Your task to perform on an android device: delete location history Image 0: 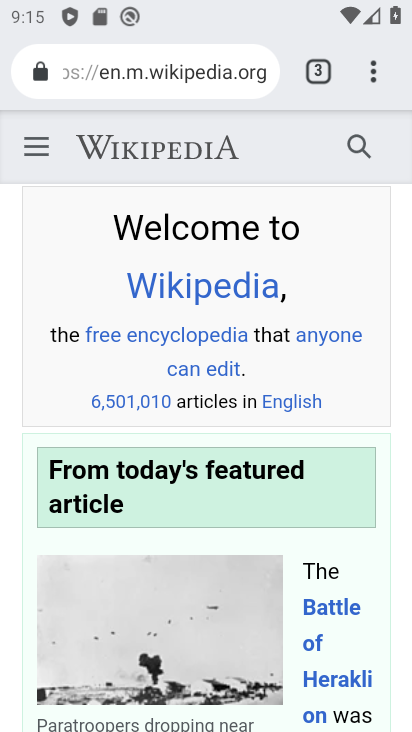
Step 0: click (367, 62)
Your task to perform on an android device: delete location history Image 1: 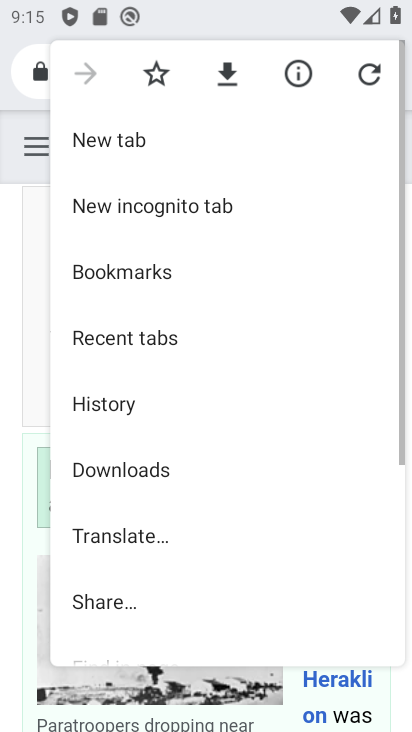
Step 1: press home button
Your task to perform on an android device: delete location history Image 2: 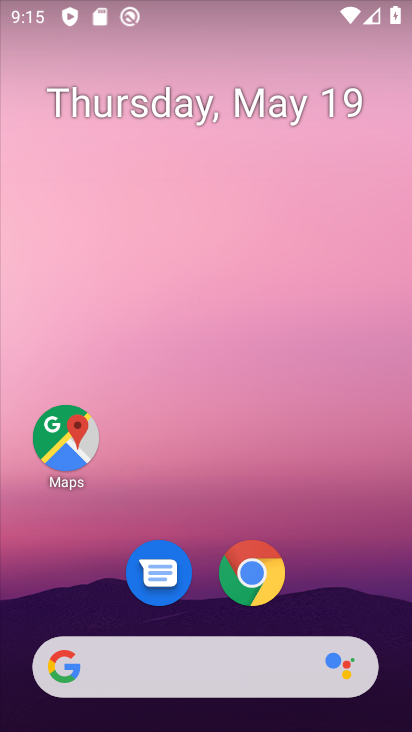
Step 2: click (57, 454)
Your task to perform on an android device: delete location history Image 3: 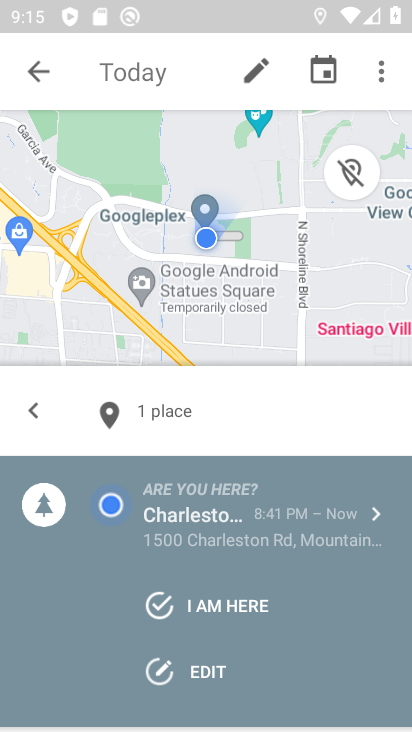
Step 3: click (380, 78)
Your task to perform on an android device: delete location history Image 4: 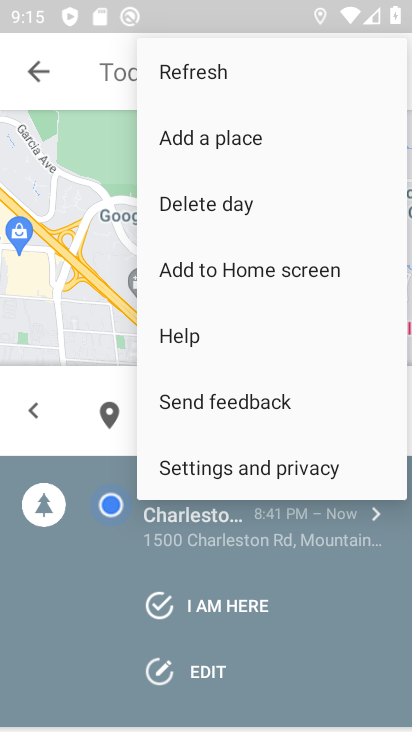
Step 4: click (237, 463)
Your task to perform on an android device: delete location history Image 5: 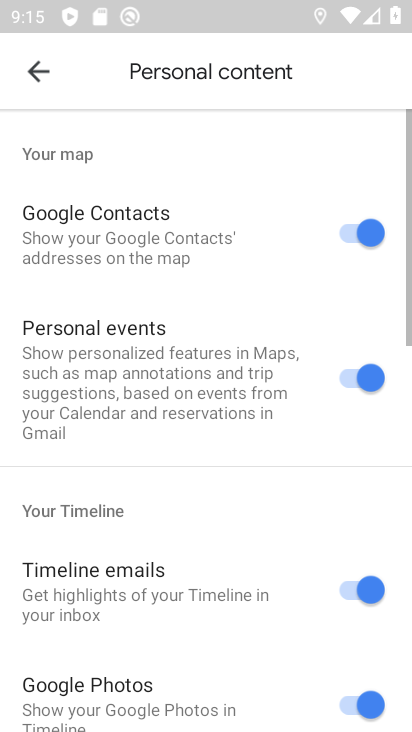
Step 5: drag from (223, 681) to (224, 169)
Your task to perform on an android device: delete location history Image 6: 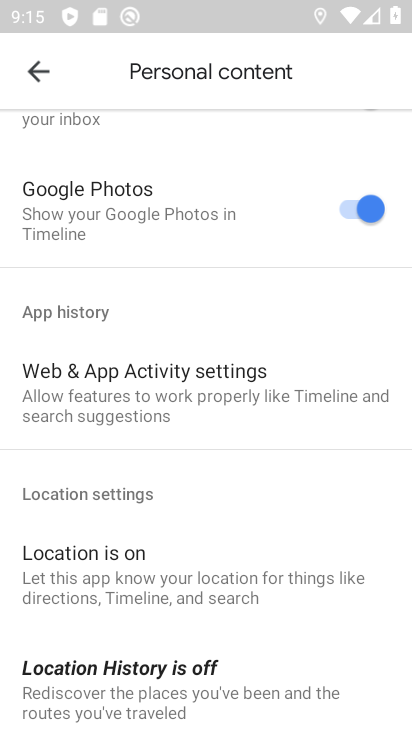
Step 6: drag from (202, 626) to (246, 279)
Your task to perform on an android device: delete location history Image 7: 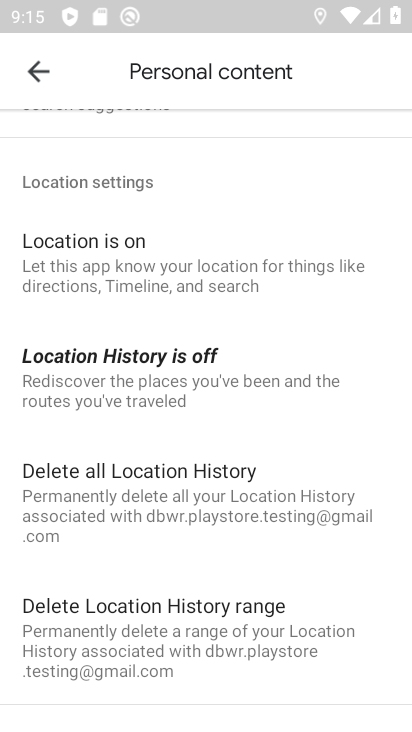
Step 7: click (200, 506)
Your task to perform on an android device: delete location history Image 8: 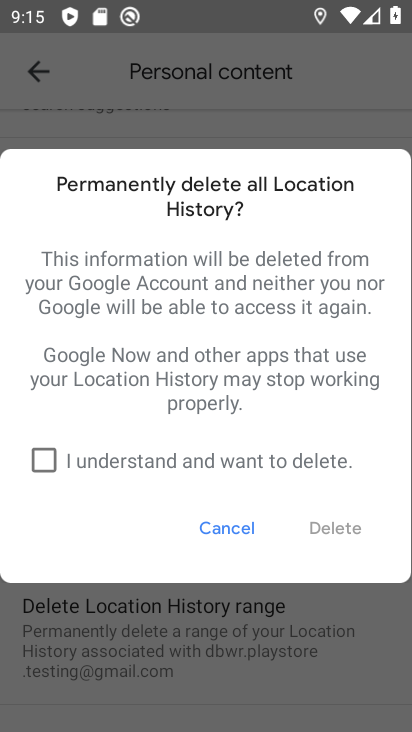
Step 8: click (59, 462)
Your task to perform on an android device: delete location history Image 9: 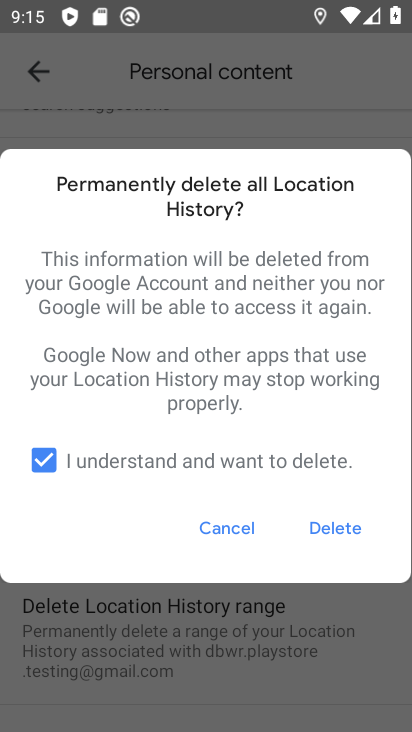
Step 9: click (331, 519)
Your task to perform on an android device: delete location history Image 10: 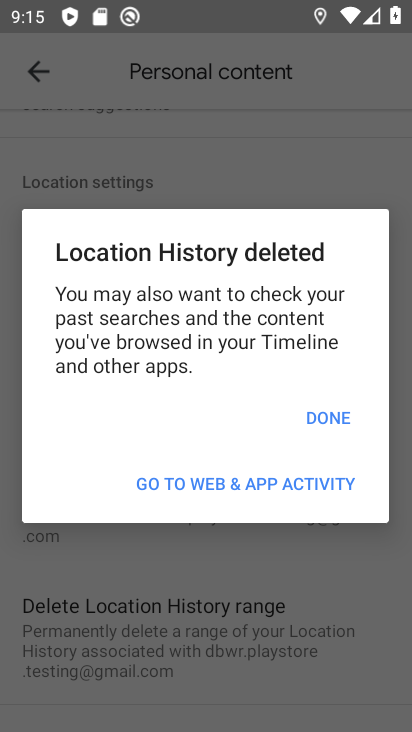
Step 10: click (312, 422)
Your task to perform on an android device: delete location history Image 11: 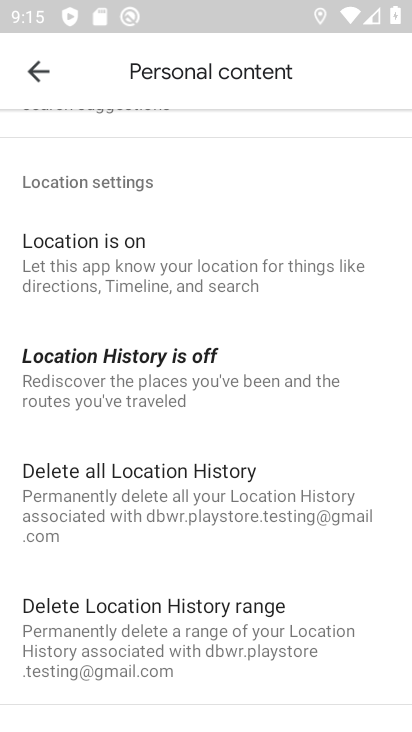
Step 11: task complete